Your task to perform on an android device: turn on sleep mode Image 0: 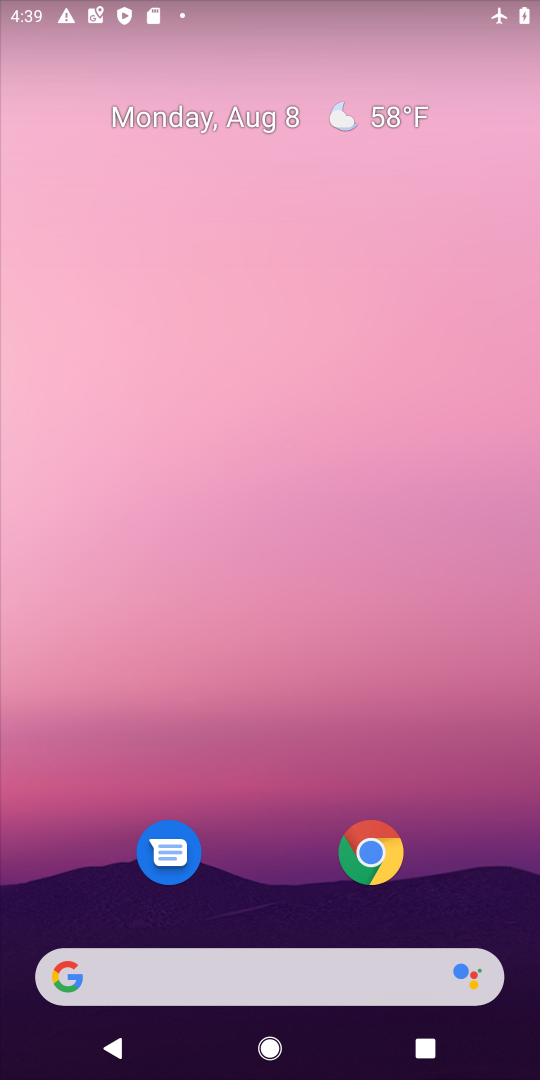
Step 0: drag from (268, 663) to (325, 148)
Your task to perform on an android device: turn on sleep mode Image 1: 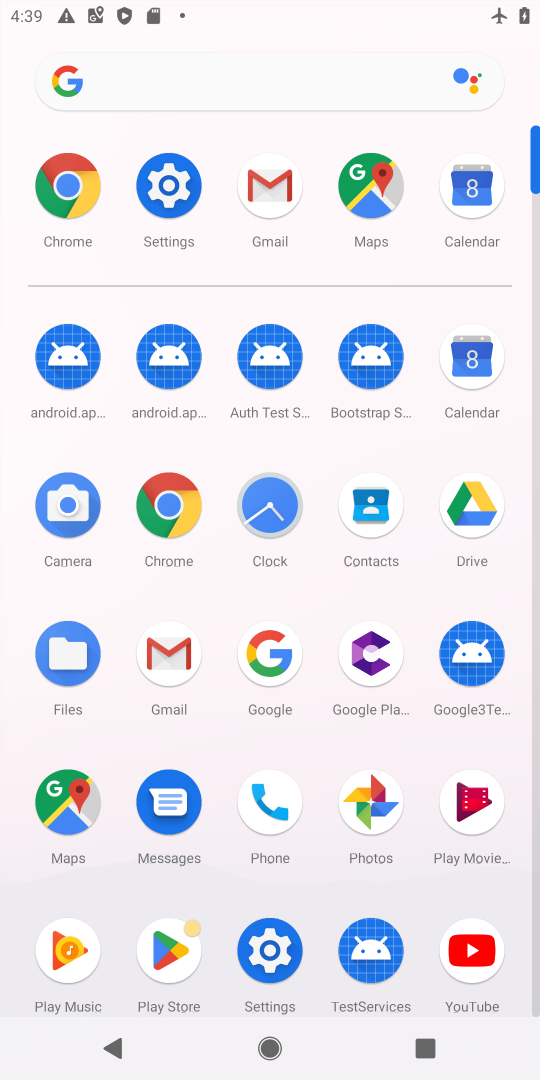
Step 1: click (167, 174)
Your task to perform on an android device: turn on sleep mode Image 2: 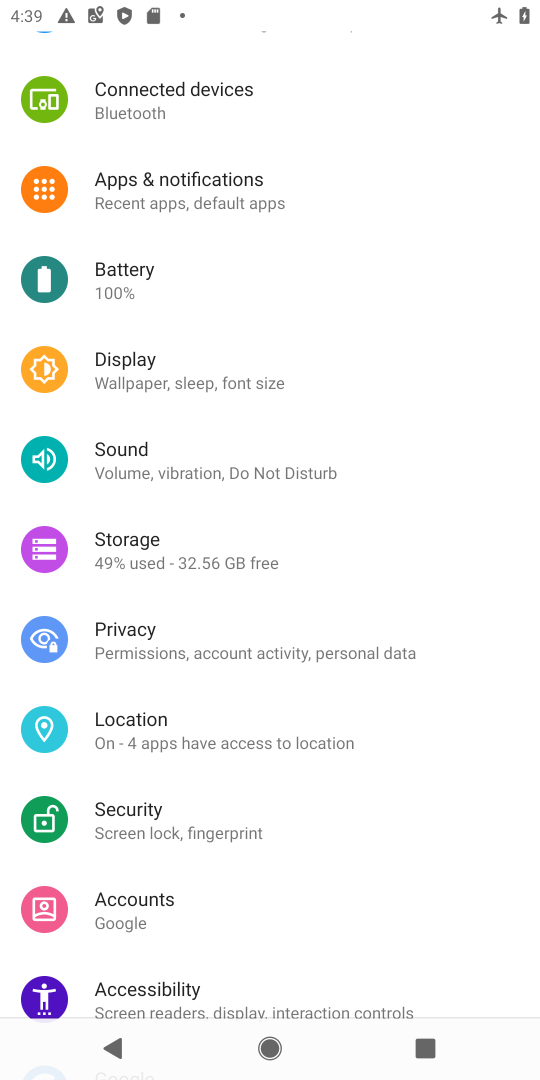
Step 2: click (168, 361)
Your task to perform on an android device: turn on sleep mode Image 3: 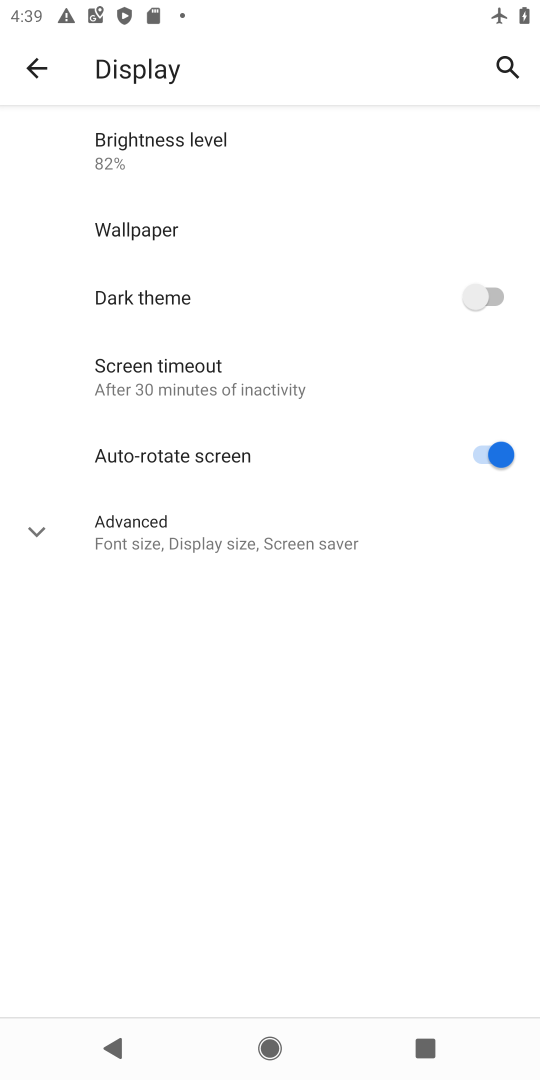
Step 3: click (226, 371)
Your task to perform on an android device: turn on sleep mode Image 4: 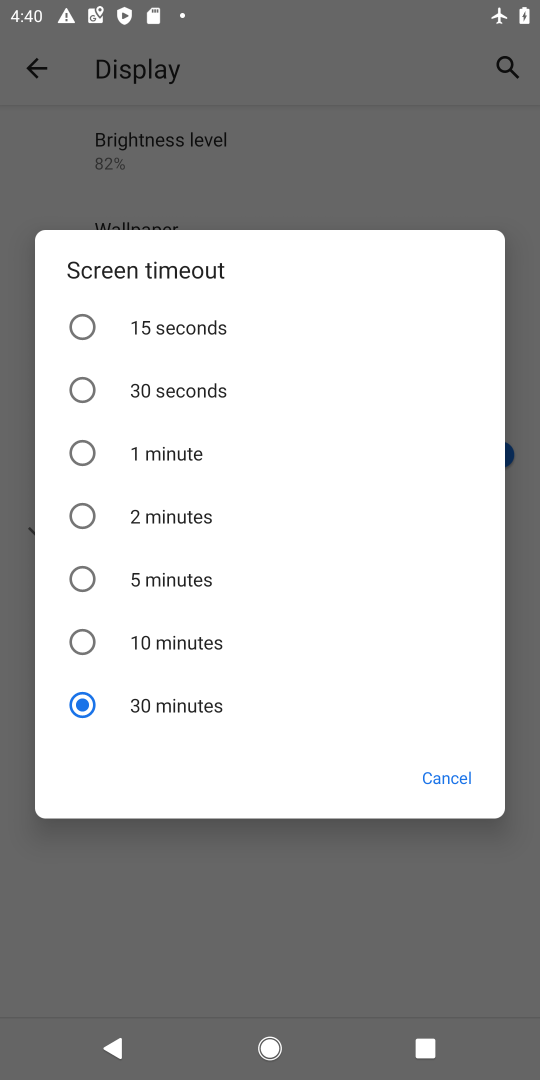
Step 4: task complete